Your task to perform on an android device: open app "YouTube Kids" Image 0: 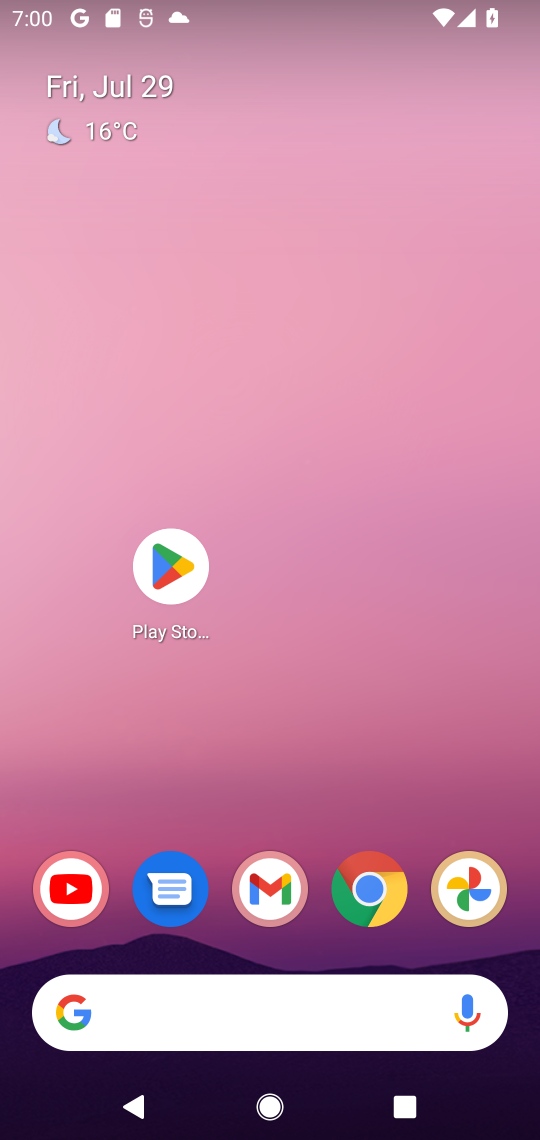
Step 0: press home button
Your task to perform on an android device: open app "YouTube Kids" Image 1: 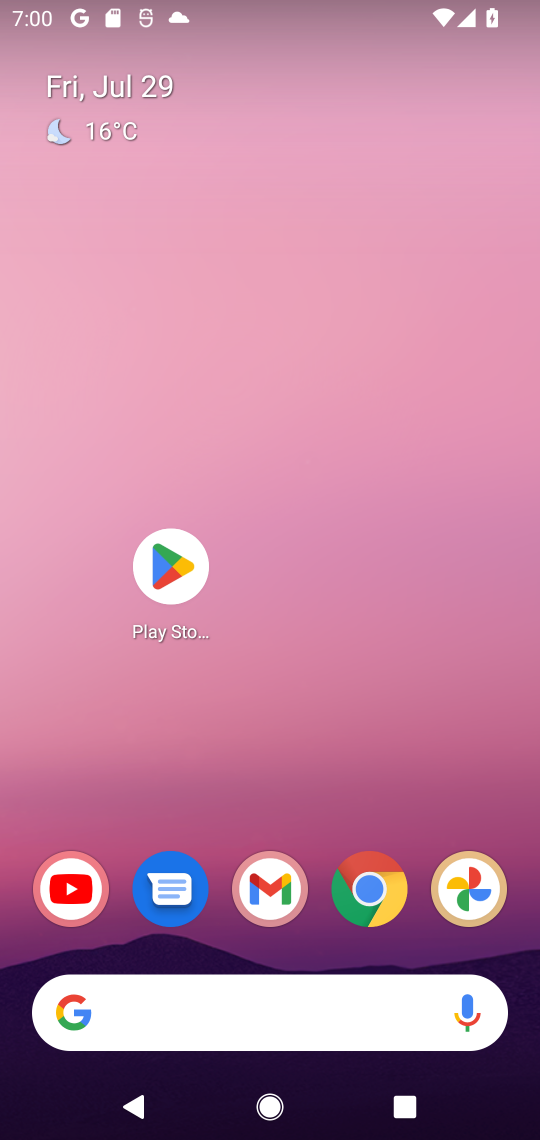
Step 1: click (156, 572)
Your task to perform on an android device: open app "YouTube Kids" Image 2: 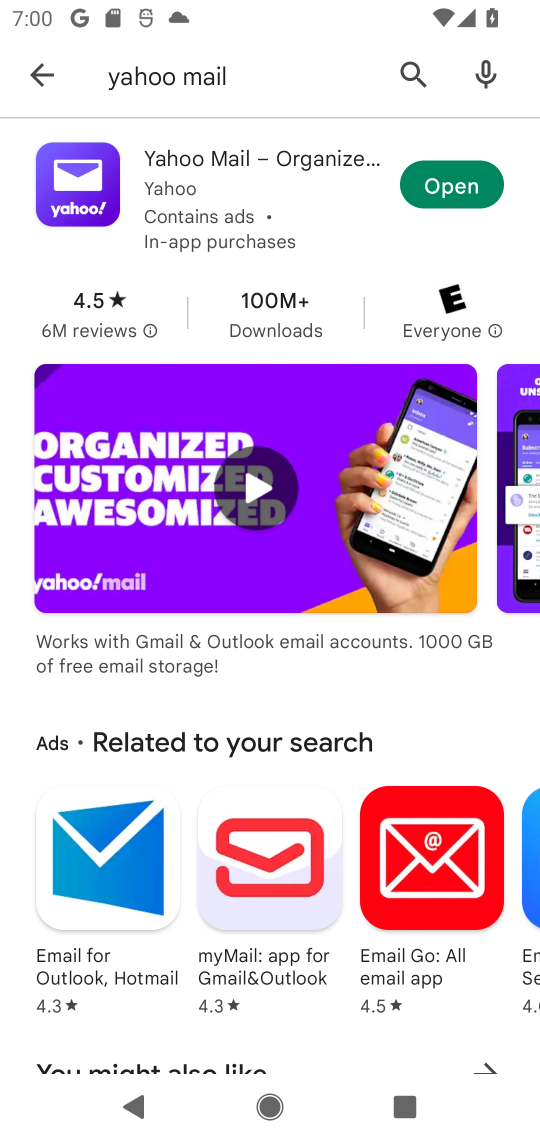
Step 2: click (406, 67)
Your task to perform on an android device: open app "YouTube Kids" Image 3: 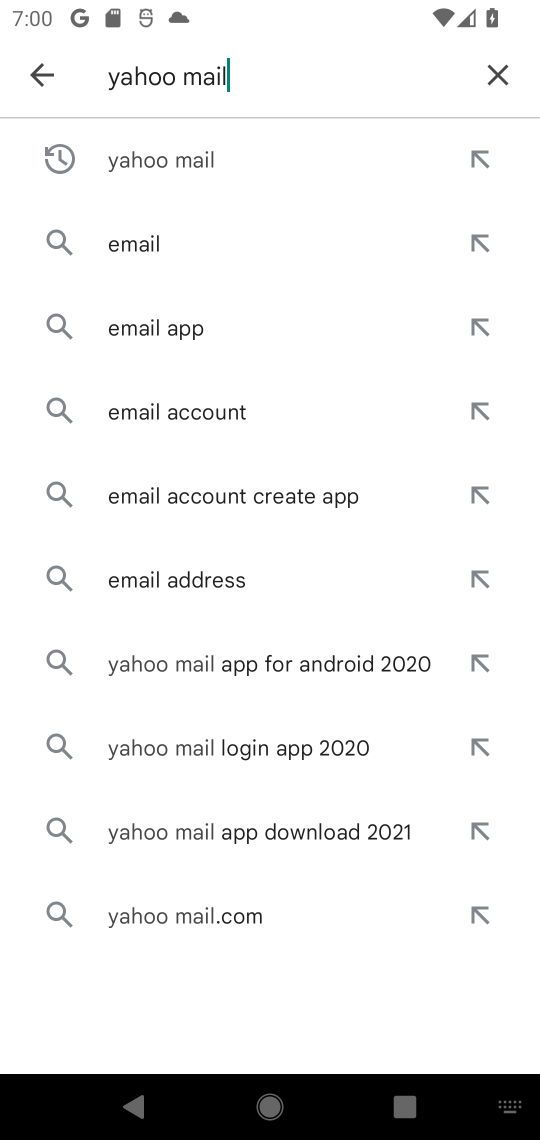
Step 3: click (506, 79)
Your task to perform on an android device: open app "YouTube Kids" Image 4: 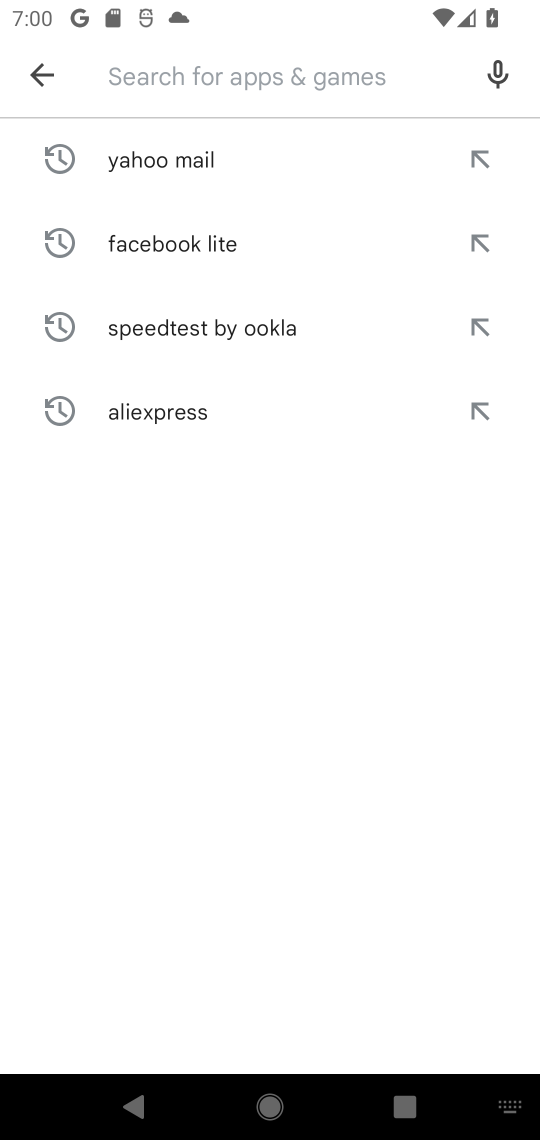
Step 4: type "YouTube Kids"
Your task to perform on an android device: open app "YouTube Kids" Image 5: 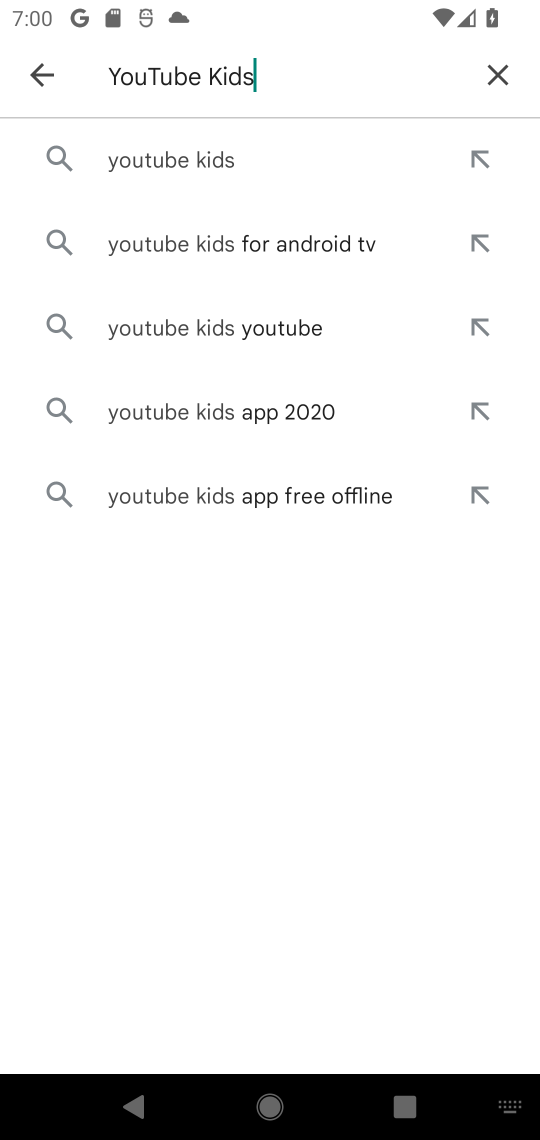
Step 5: click (178, 151)
Your task to perform on an android device: open app "YouTube Kids" Image 6: 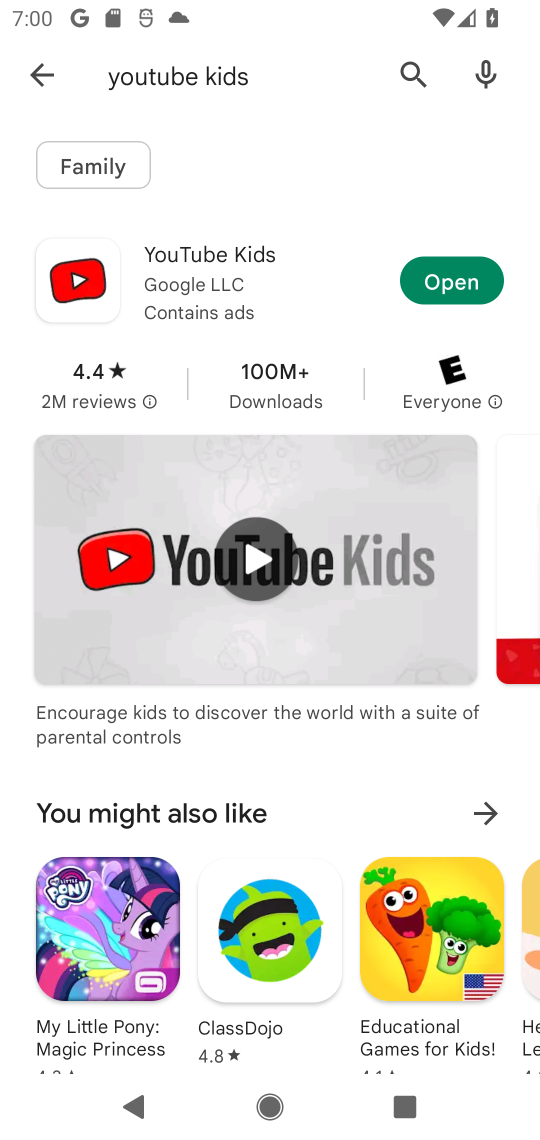
Step 6: click (444, 282)
Your task to perform on an android device: open app "YouTube Kids" Image 7: 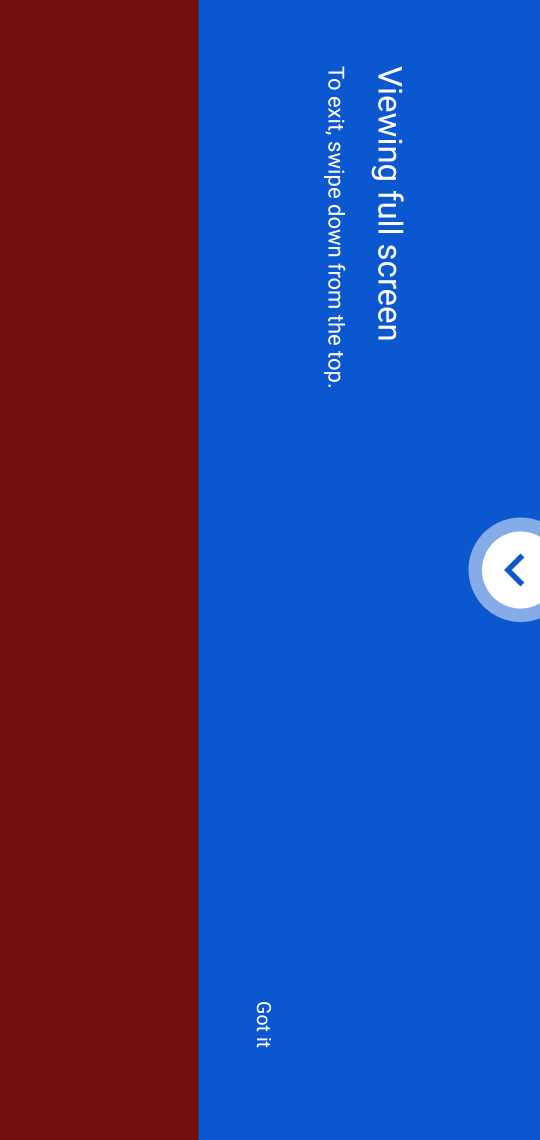
Step 7: task complete